Your task to perform on an android device: delete browsing data in the chrome app Image 0: 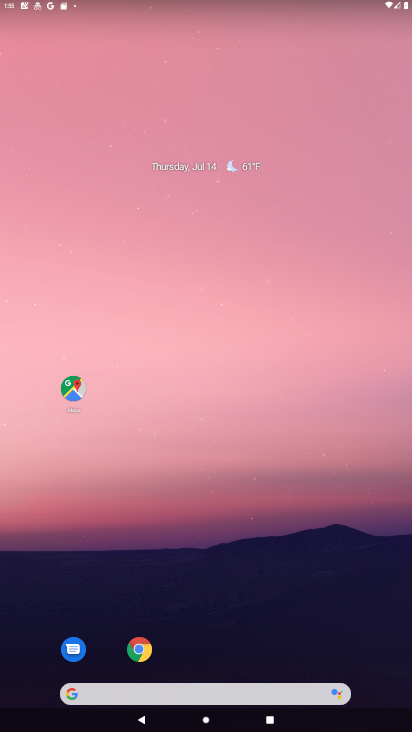
Step 0: drag from (262, 683) to (132, 201)
Your task to perform on an android device: delete browsing data in the chrome app Image 1: 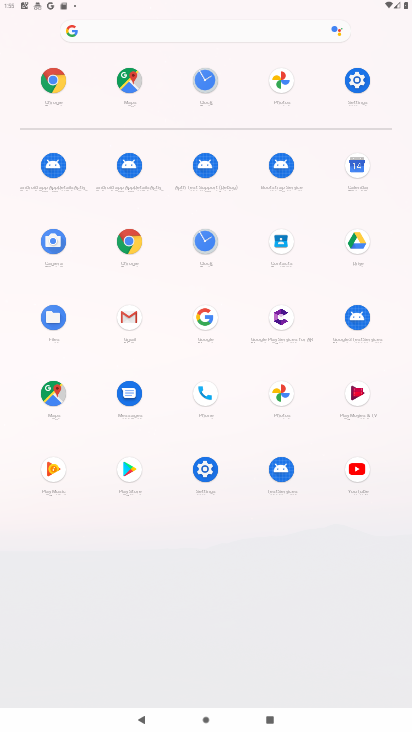
Step 1: click (131, 247)
Your task to perform on an android device: delete browsing data in the chrome app Image 2: 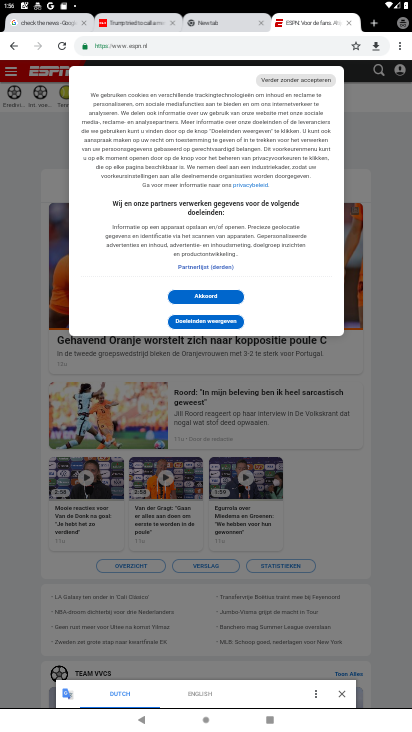
Step 2: drag from (397, 49) to (288, 143)
Your task to perform on an android device: delete browsing data in the chrome app Image 3: 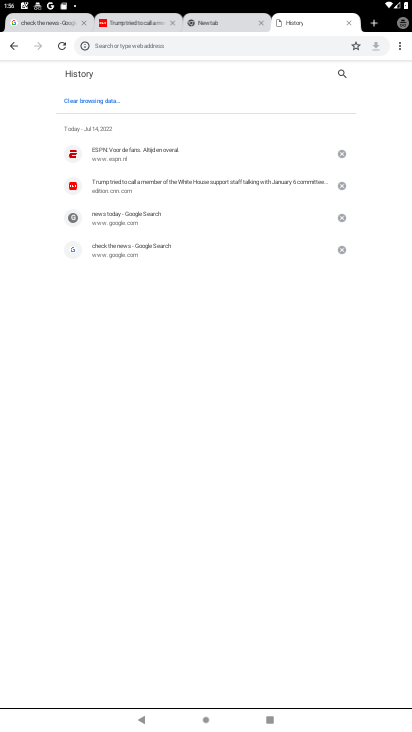
Step 3: click (102, 97)
Your task to perform on an android device: delete browsing data in the chrome app Image 4: 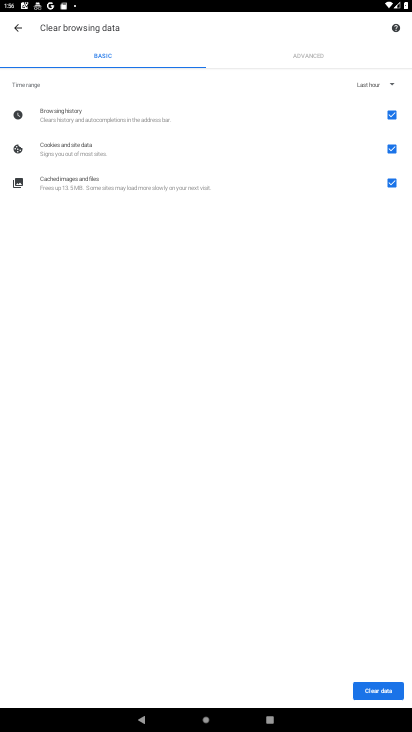
Step 4: press home button
Your task to perform on an android device: delete browsing data in the chrome app Image 5: 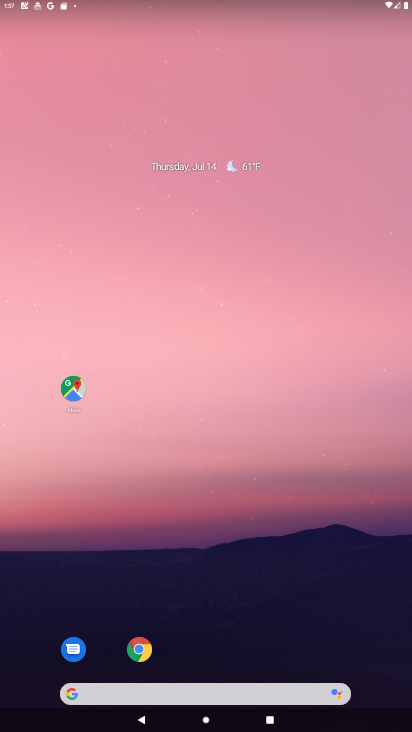
Step 5: drag from (292, 613) to (220, 113)
Your task to perform on an android device: delete browsing data in the chrome app Image 6: 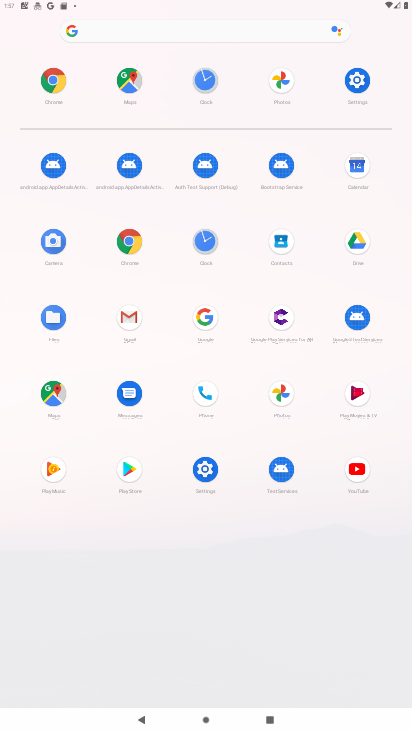
Step 6: click (126, 246)
Your task to perform on an android device: delete browsing data in the chrome app Image 7: 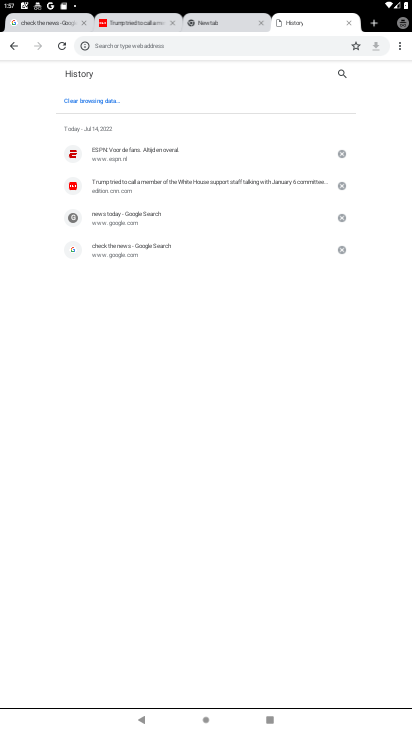
Step 7: click (97, 103)
Your task to perform on an android device: delete browsing data in the chrome app Image 8: 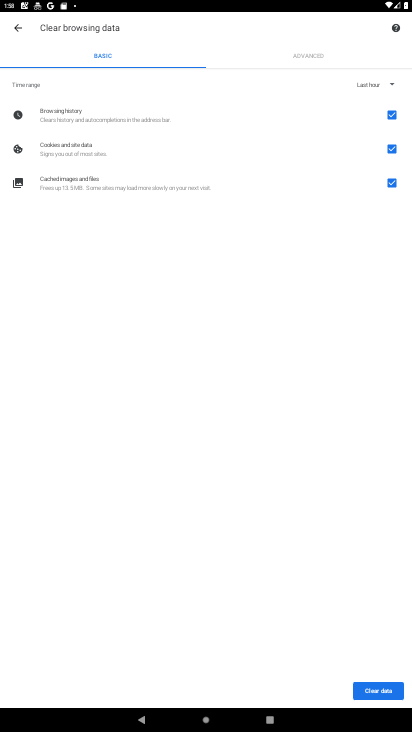
Step 8: click (378, 692)
Your task to perform on an android device: delete browsing data in the chrome app Image 9: 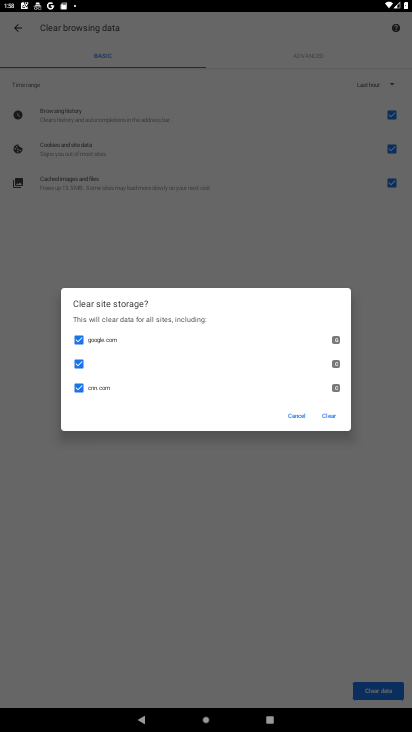
Step 9: click (329, 412)
Your task to perform on an android device: delete browsing data in the chrome app Image 10: 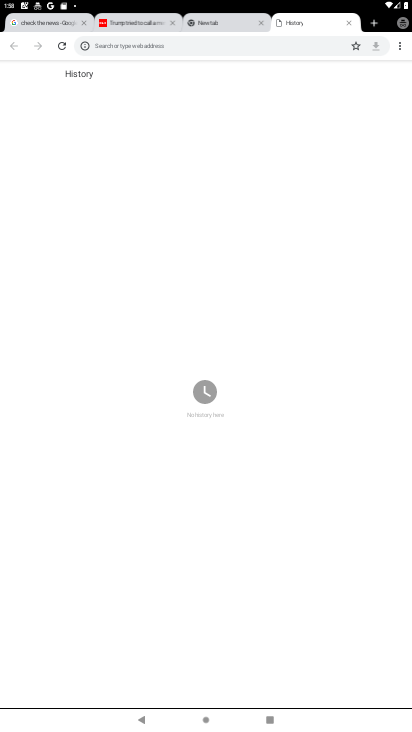
Step 10: task complete